Your task to perform on an android device: Go to internet settings Image 0: 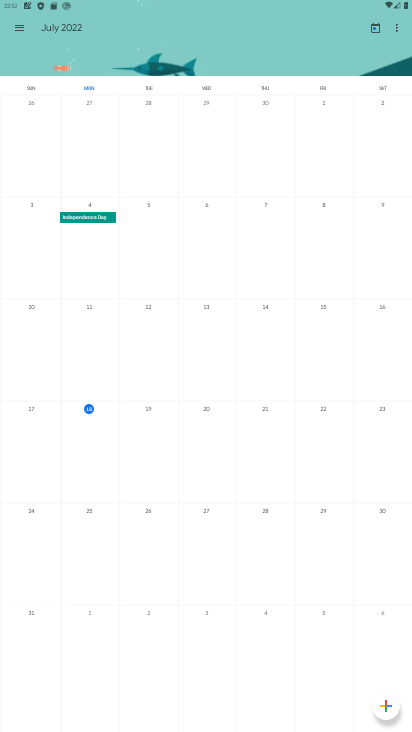
Step 0: press home button
Your task to perform on an android device: Go to internet settings Image 1: 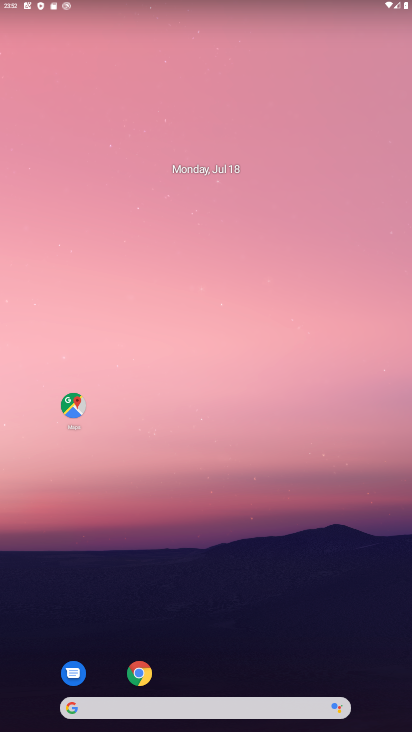
Step 1: drag from (248, 630) to (222, 192)
Your task to perform on an android device: Go to internet settings Image 2: 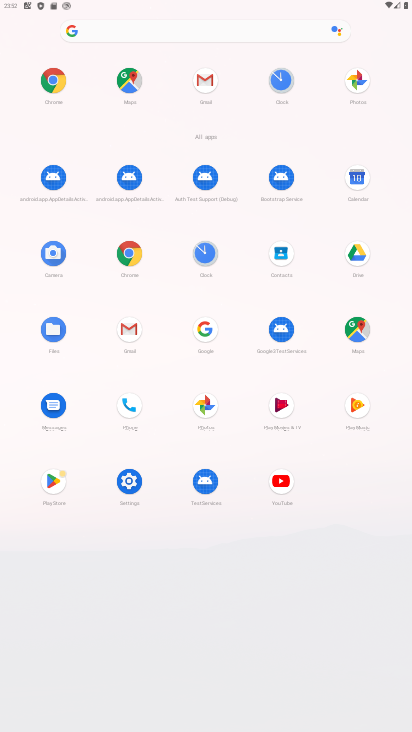
Step 2: click (135, 471)
Your task to perform on an android device: Go to internet settings Image 3: 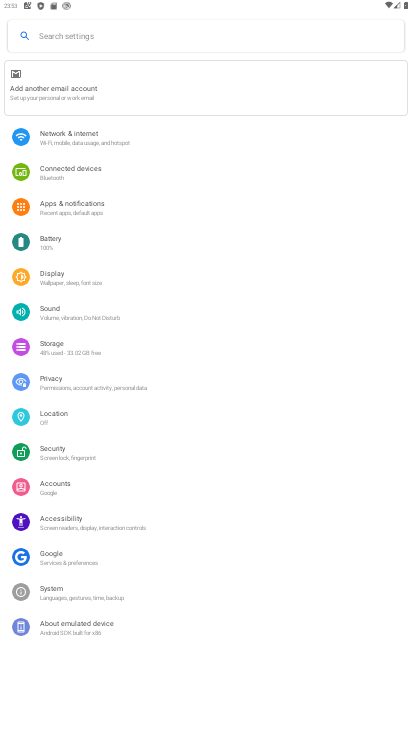
Step 3: click (112, 139)
Your task to perform on an android device: Go to internet settings Image 4: 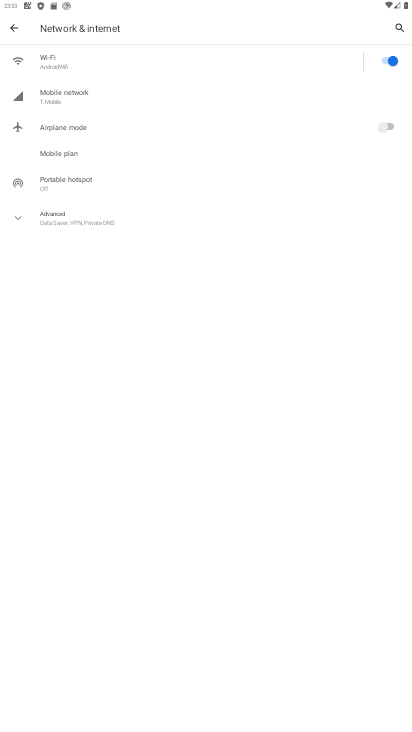
Step 4: task complete